Your task to perform on an android device: Is it going to rain tomorrow? Image 0: 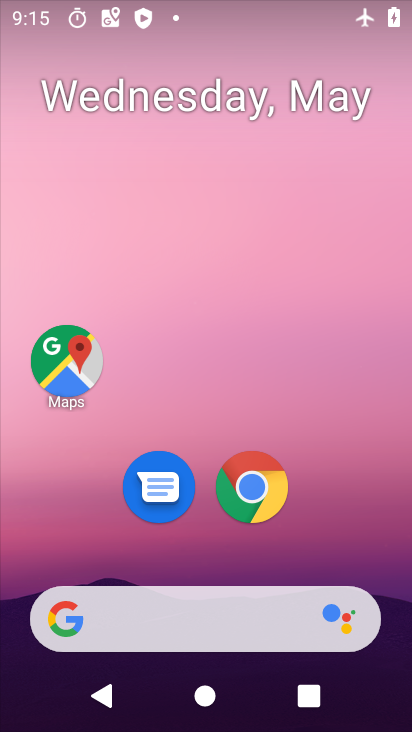
Step 0: drag from (207, 561) to (226, 216)
Your task to perform on an android device: Is it going to rain tomorrow? Image 1: 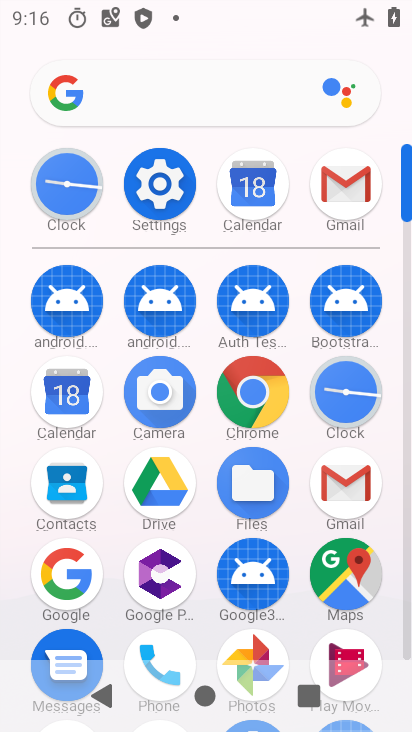
Step 1: drag from (196, 544) to (228, 293)
Your task to perform on an android device: Is it going to rain tomorrow? Image 2: 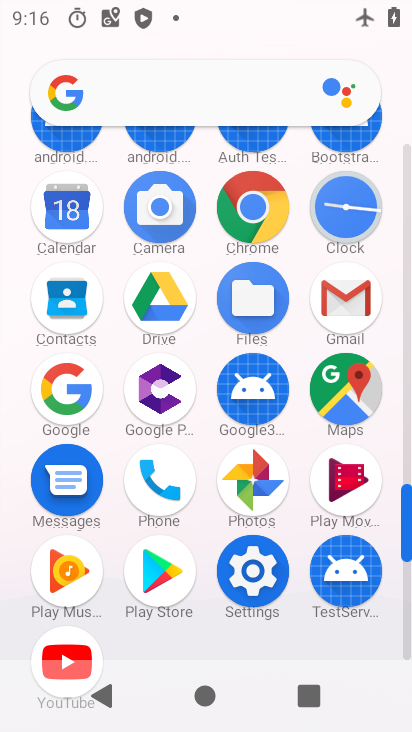
Step 2: click (42, 386)
Your task to perform on an android device: Is it going to rain tomorrow? Image 3: 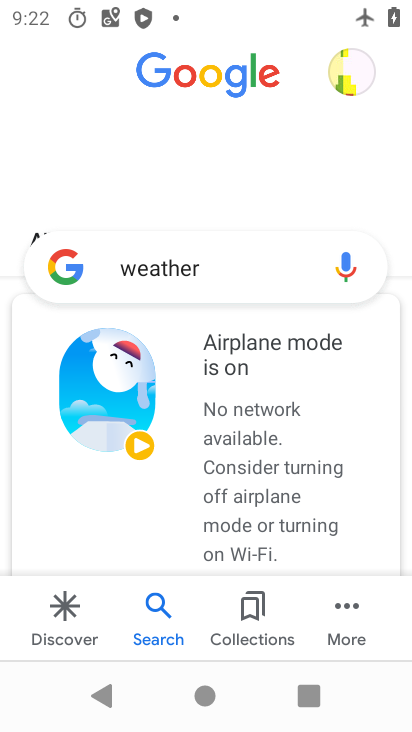
Step 3: task complete